Your task to perform on an android device: Go to notification settings Image 0: 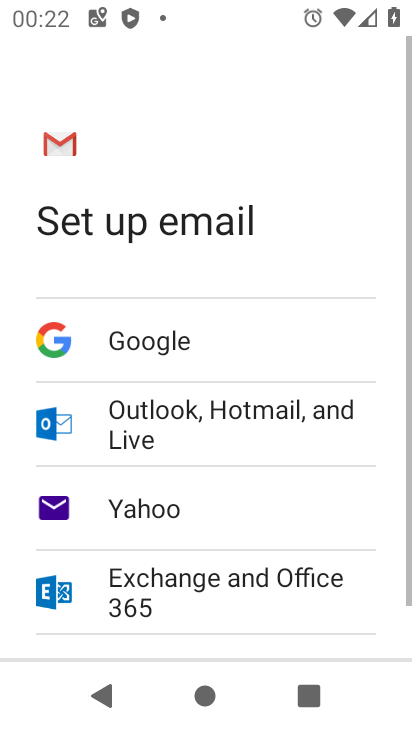
Step 0: press home button
Your task to perform on an android device: Go to notification settings Image 1: 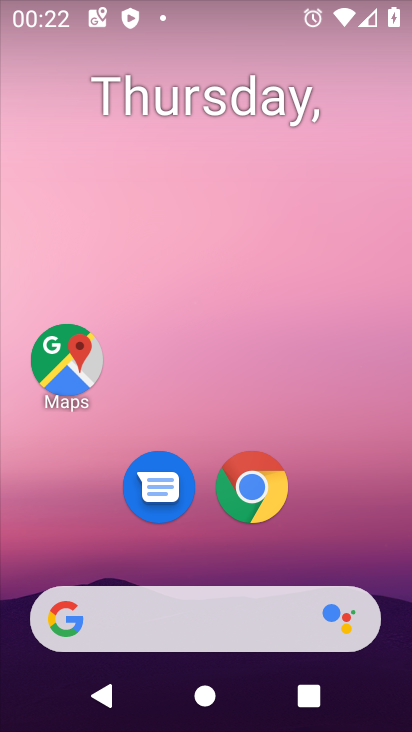
Step 1: drag from (336, 546) to (302, 0)
Your task to perform on an android device: Go to notification settings Image 2: 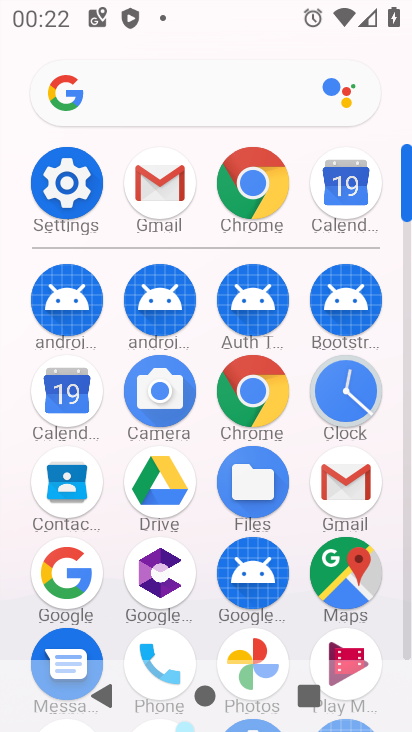
Step 2: click (69, 183)
Your task to perform on an android device: Go to notification settings Image 3: 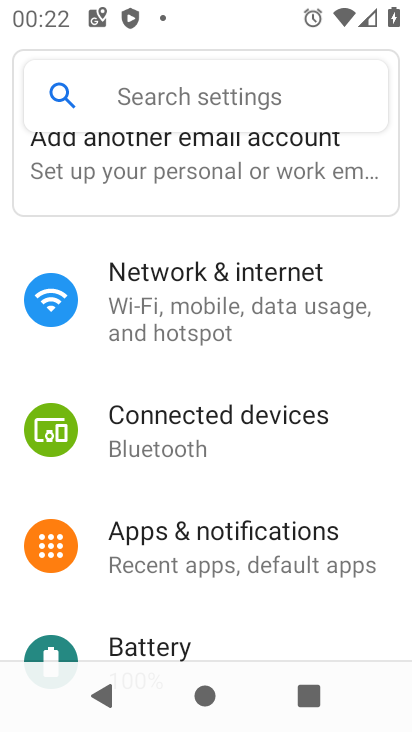
Step 3: click (197, 549)
Your task to perform on an android device: Go to notification settings Image 4: 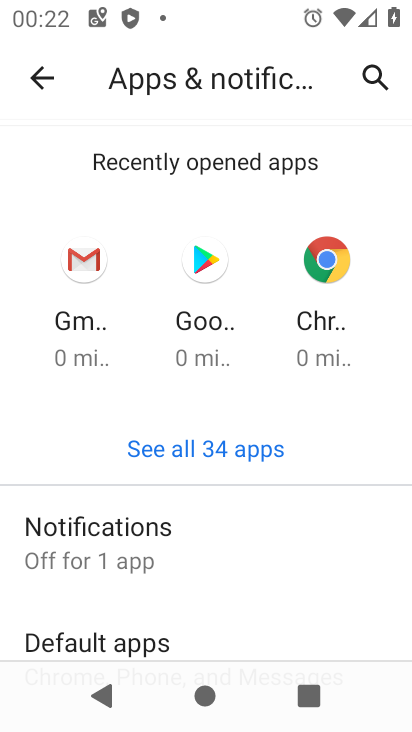
Step 4: task complete